Your task to perform on an android device: find photos in the google photos app Image 0: 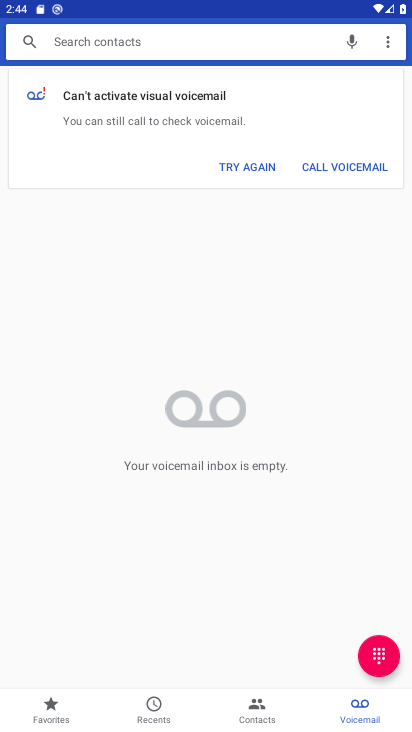
Step 0: press home button
Your task to perform on an android device: find photos in the google photos app Image 1: 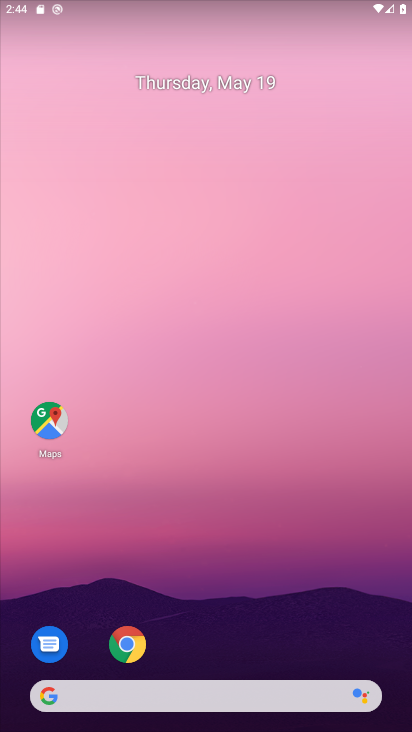
Step 1: drag from (270, 628) to (286, 156)
Your task to perform on an android device: find photos in the google photos app Image 2: 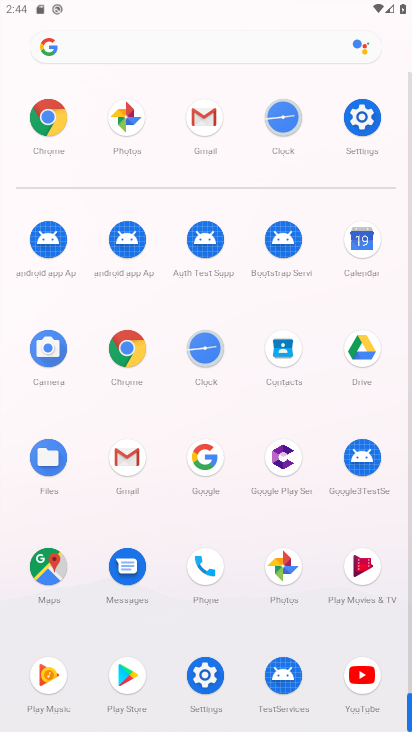
Step 2: click (283, 560)
Your task to perform on an android device: find photos in the google photos app Image 3: 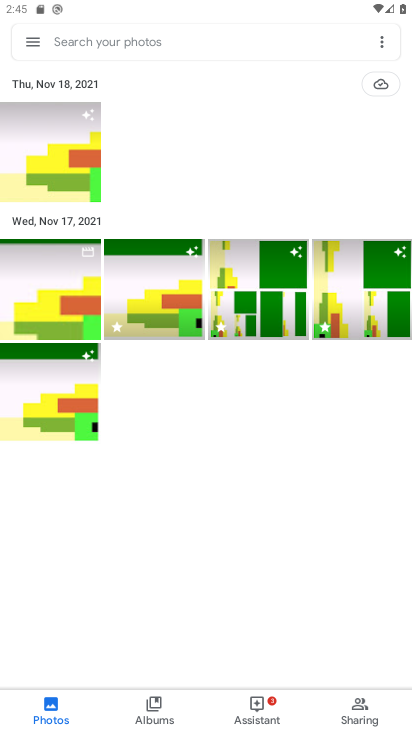
Step 3: task complete